Your task to perform on an android device: turn on sleep mode Image 0: 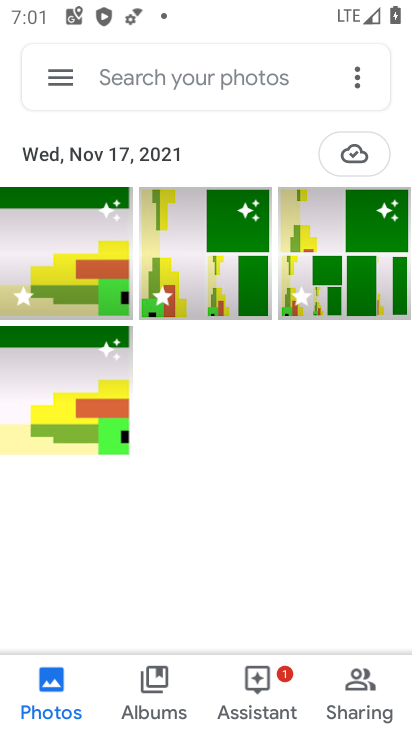
Step 0: press back button
Your task to perform on an android device: turn on sleep mode Image 1: 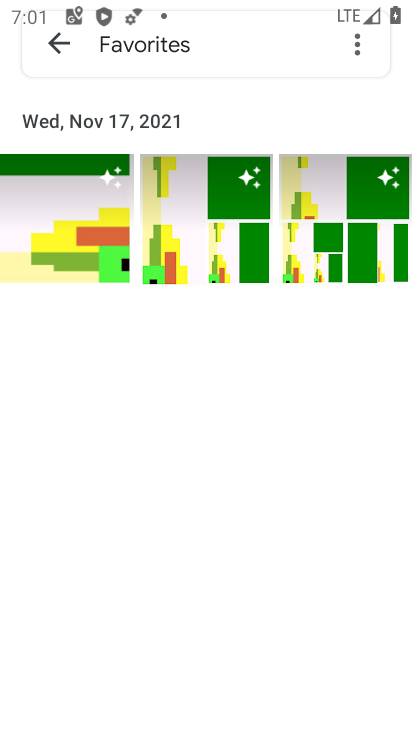
Step 1: press home button
Your task to perform on an android device: turn on sleep mode Image 2: 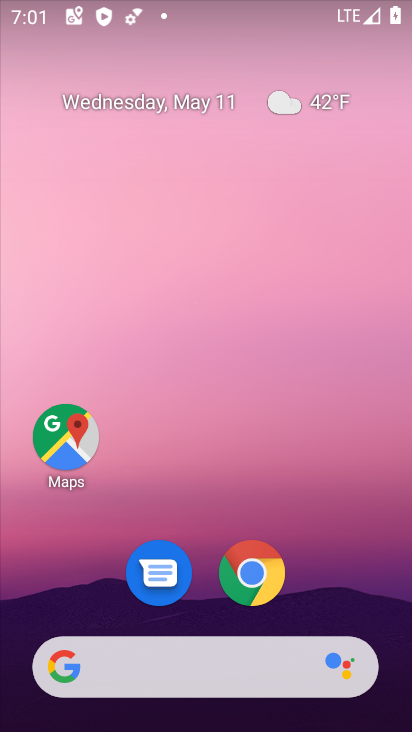
Step 2: drag from (324, 592) to (294, 191)
Your task to perform on an android device: turn on sleep mode Image 3: 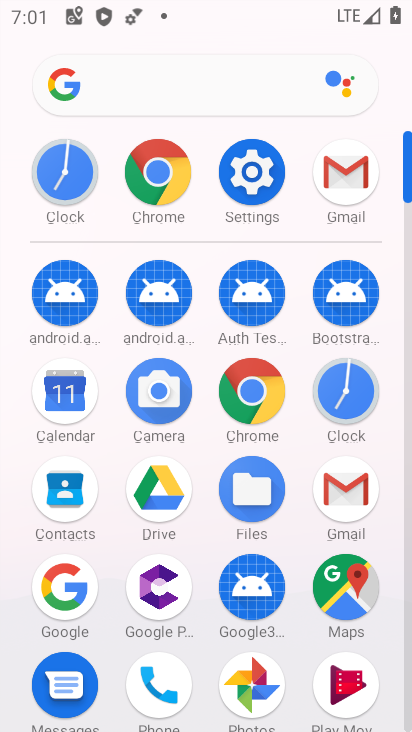
Step 3: click (257, 215)
Your task to perform on an android device: turn on sleep mode Image 4: 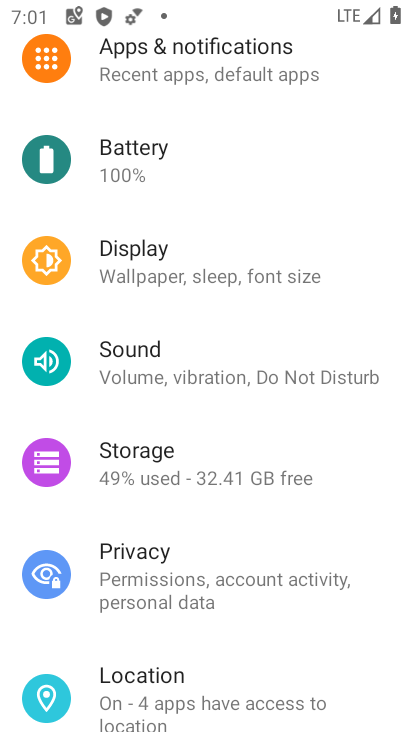
Step 4: task complete